Your task to perform on an android device: uninstall "WhatsApp Messenger" Image 0: 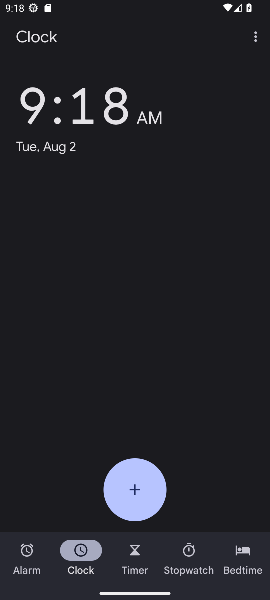
Step 0: drag from (204, 450) to (200, 167)
Your task to perform on an android device: uninstall "WhatsApp Messenger" Image 1: 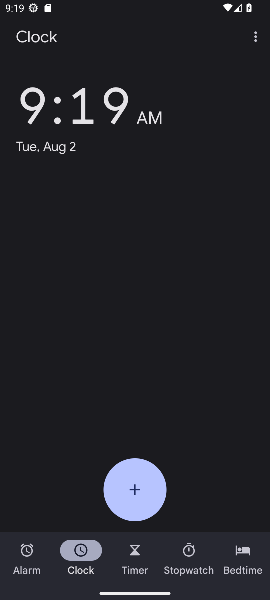
Step 1: drag from (207, 498) to (229, 243)
Your task to perform on an android device: uninstall "WhatsApp Messenger" Image 2: 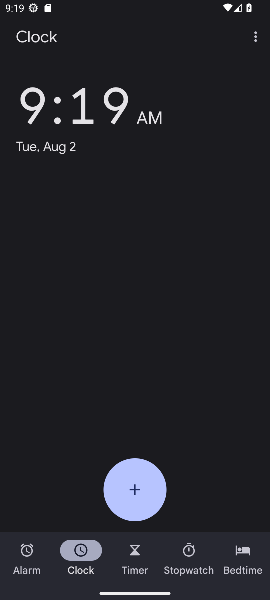
Step 2: press home button
Your task to perform on an android device: uninstall "WhatsApp Messenger" Image 3: 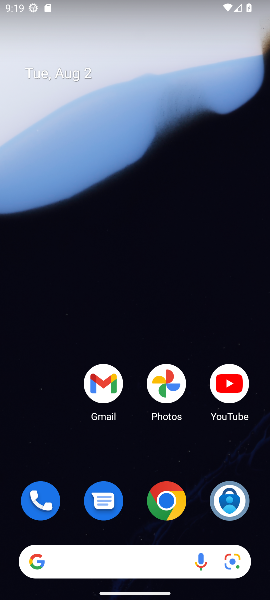
Step 3: drag from (134, 511) to (132, 286)
Your task to perform on an android device: uninstall "WhatsApp Messenger" Image 4: 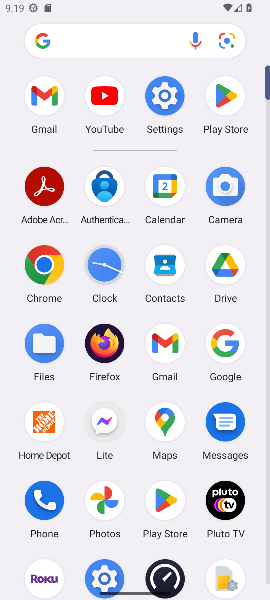
Step 4: click (229, 100)
Your task to perform on an android device: uninstall "WhatsApp Messenger" Image 5: 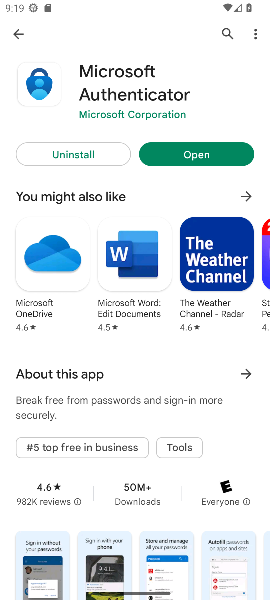
Step 5: click (224, 35)
Your task to perform on an android device: uninstall "WhatsApp Messenger" Image 6: 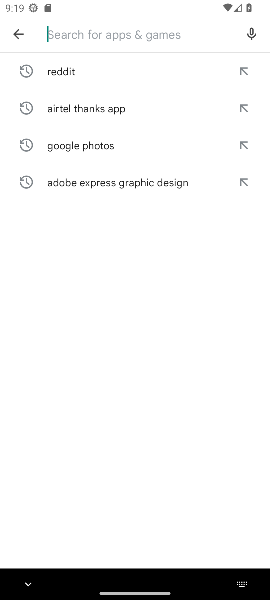
Step 6: click (134, 35)
Your task to perform on an android device: uninstall "WhatsApp Messenger" Image 7: 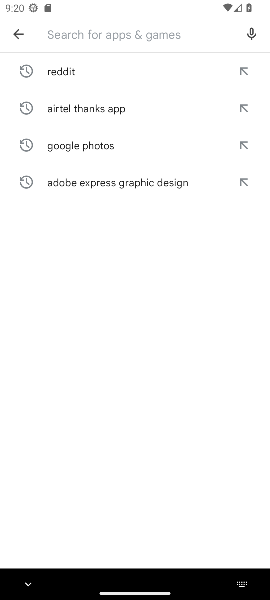
Step 7: type "WhatsApp Messenger"
Your task to perform on an android device: uninstall "WhatsApp Messenger" Image 8: 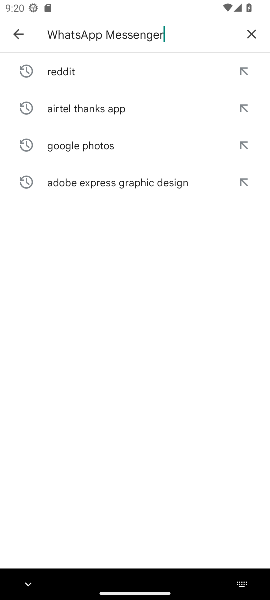
Step 8: type ""
Your task to perform on an android device: uninstall "WhatsApp Messenger" Image 9: 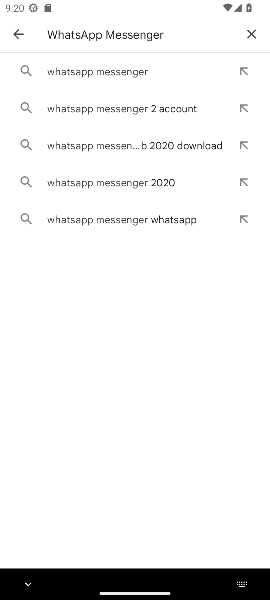
Step 9: click (102, 74)
Your task to perform on an android device: uninstall "WhatsApp Messenger" Image 10: 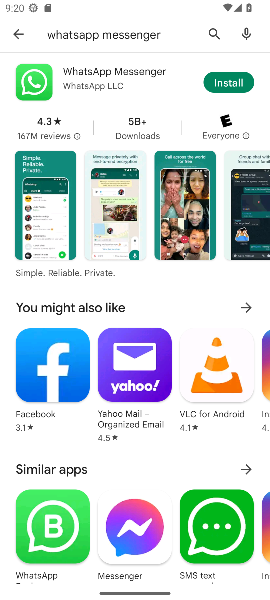
Step 10: drag from (119, 304) to (116, 597)
Your task to perform on an android device: uninstall "WhatsApp Messenger" Image 11: 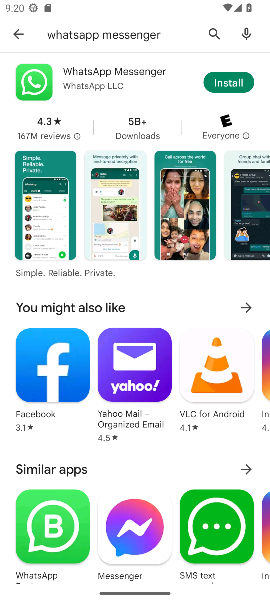
Step 11: click (64, 63)
Your task to perform on an android device: uninstall "WhatsApp Messenger" Image 12: 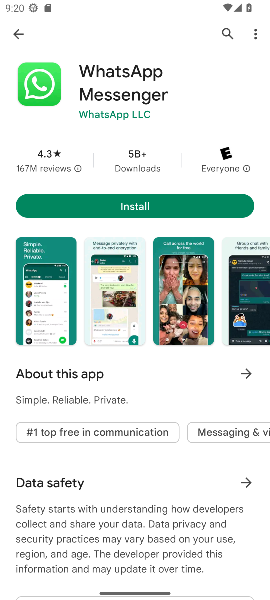
Step 12: task complete